Your task to perform on an android device: When is my next appointment? Image 0: 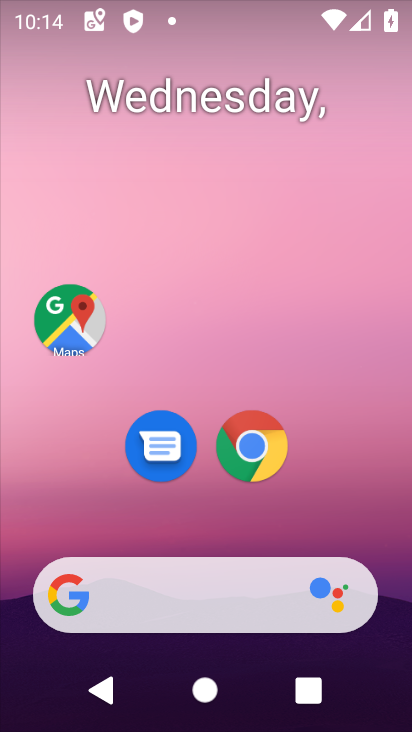
Step 0: drag from (284, 528) to (268, 137)
Your task to perform on an android device: When is my next appointment? Image 1: 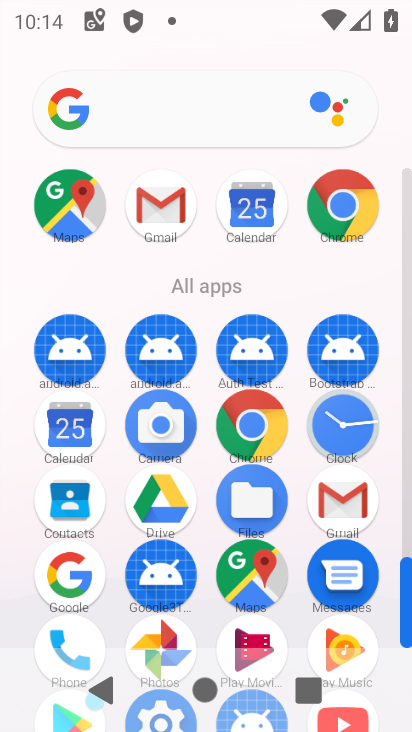
Step 1: click (249, 225)
Your task to perform on an android device: When is my next appointment? Image 2: 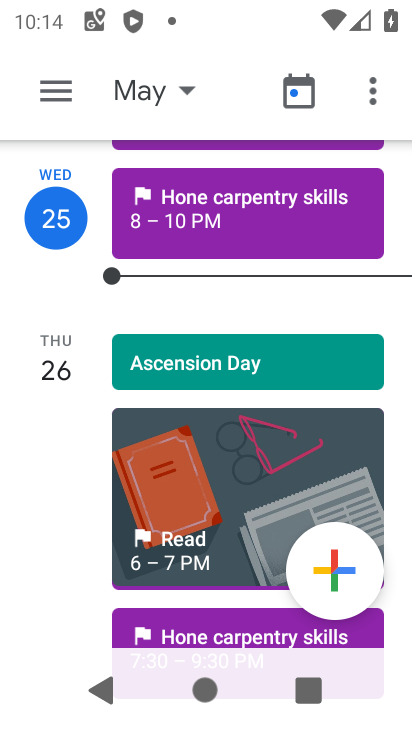
Step 2: task complete